Your task to perform on an android device: remove spam from my inbox in the gmail app Image 0: 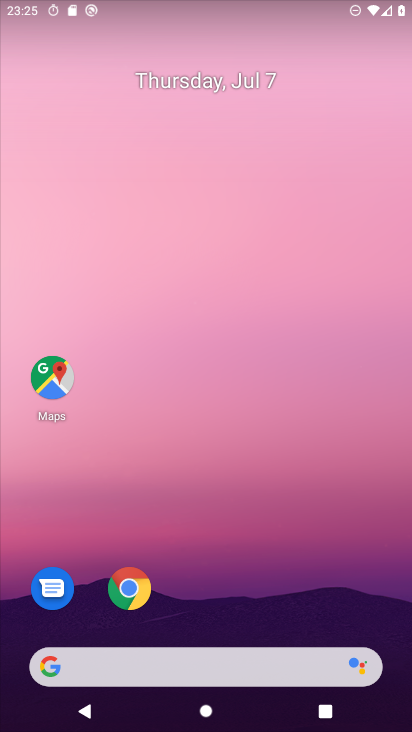
Step 0: drag from (311, 575) to (258, 76)
Your task to perform on an android device: remove spam from my inbox in the gmail app Image 1: 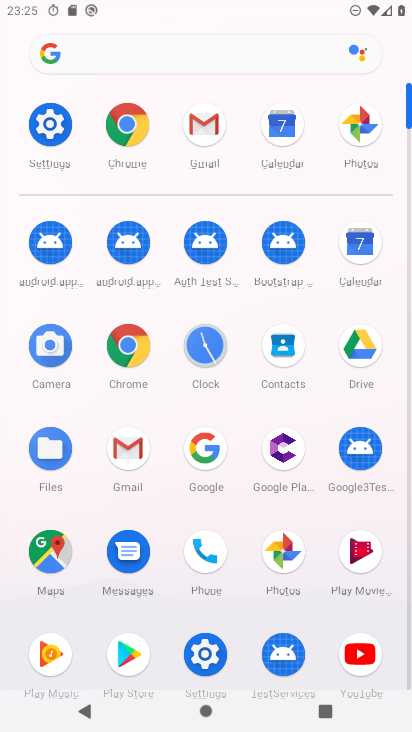
Step 1: click (201, 120)
Your task to perform on an android device: remove spam from my inbox in the gmail app Image 2: 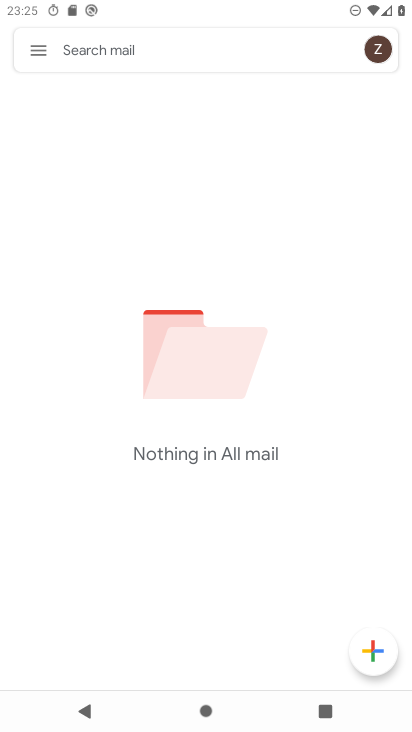
Step 2: click (31, 34)
Your task to perform on an android device: remove spam from my inbox in the gmail app Image 3: 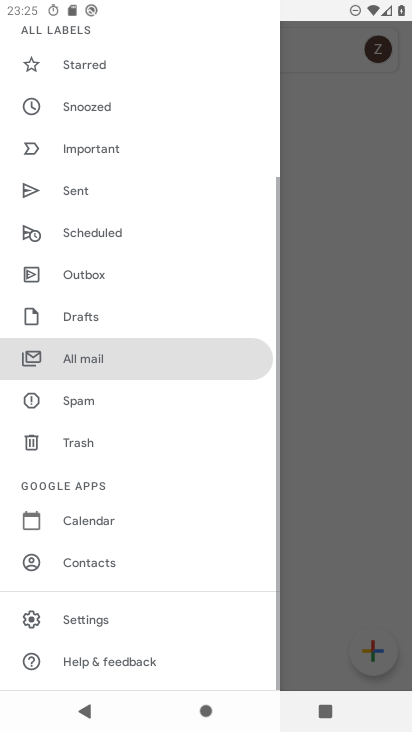
Step 3: drag from (135, 81) to (160, 463)
Your task to perform on an android device: remove spam from my inbox in the gmail app Image 4: 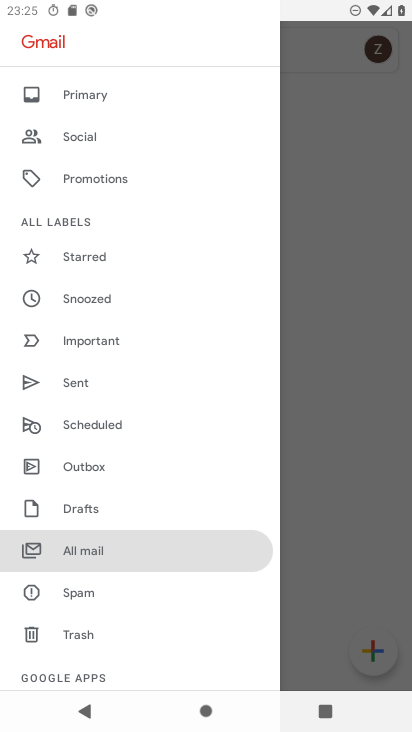
Step 4: click (83, 100)
Your task to perform on an android device: remove spam from my inbox in the gmail app Image 5: 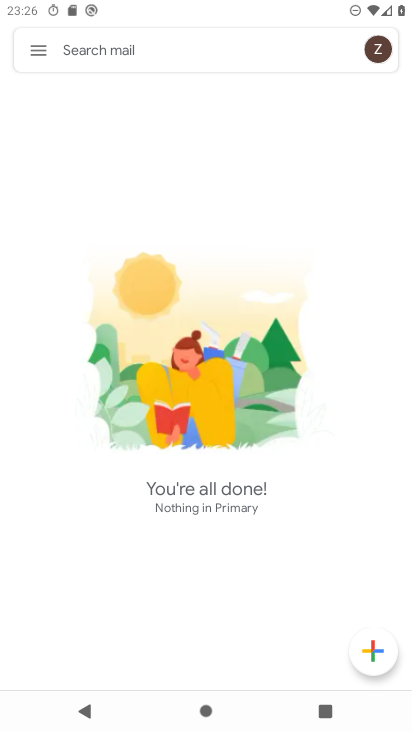
Step 5: task complete